Your task to perform on an android device: Open Amazon Image 0: 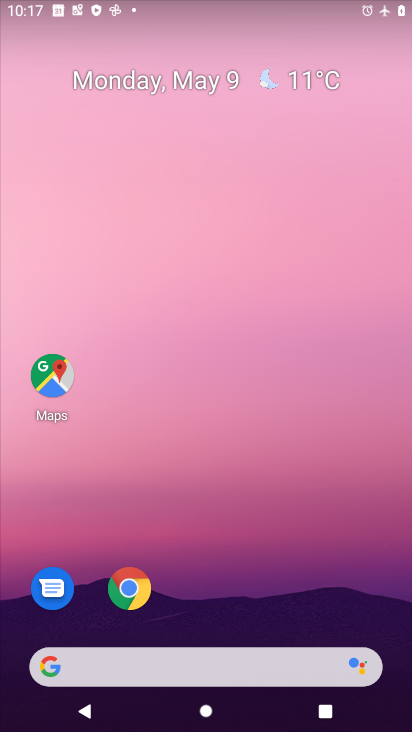
Step 0: drag from (336, 592) to (230, 108)
Your task to perform on an android device: Open Amazon Image 1: 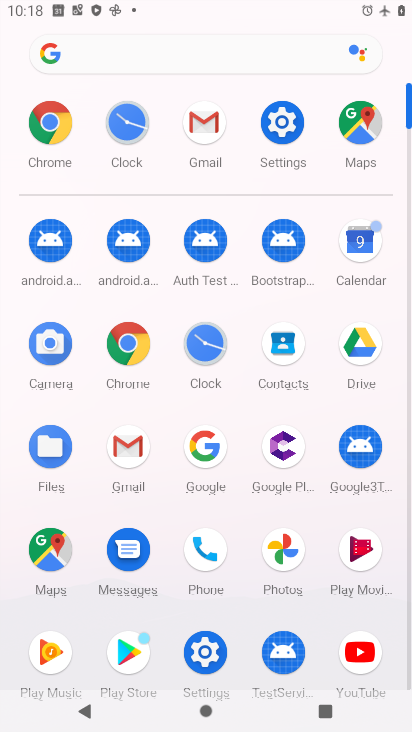
Step 1: click (135, 343)
Your task to perform on an android device: Open Amazon Image 2: 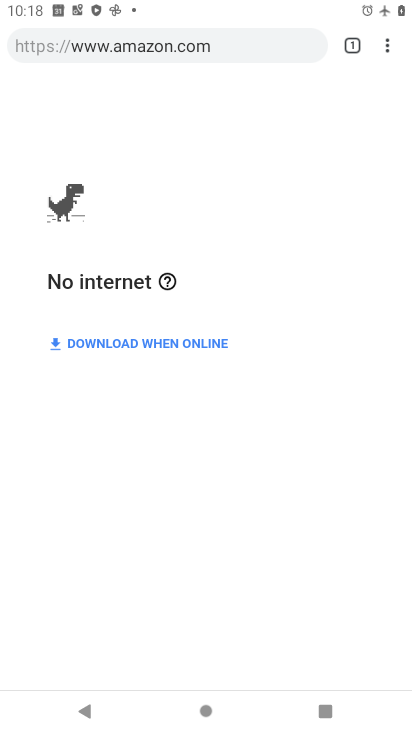
Step 2: press back button
Your task to perform on an android device: Open Amazon Image 3: 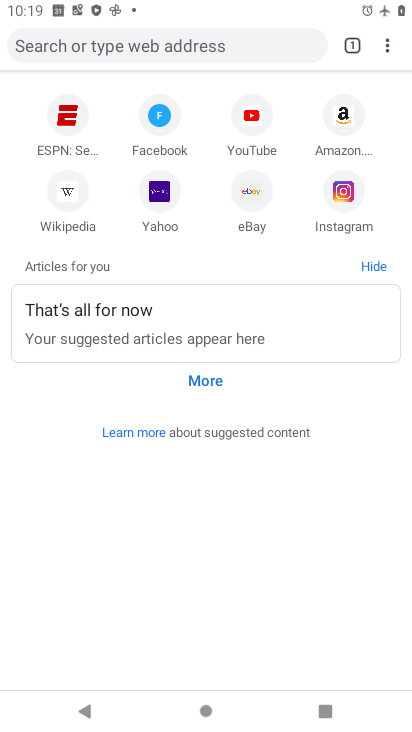
Step 3: click (343, 104)
Your task to perform on an android device: Open Amazon Image 4: 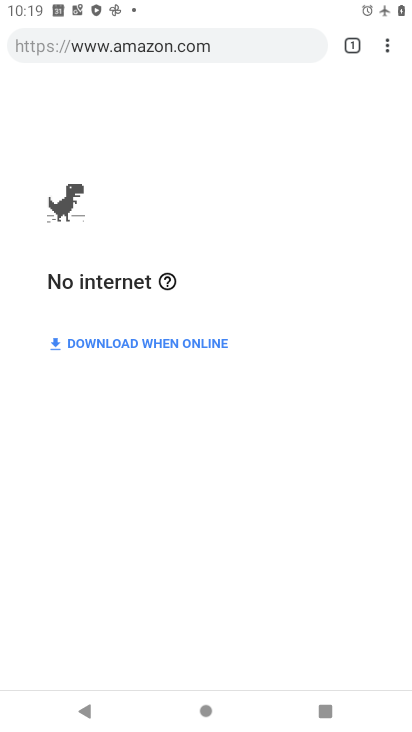
Step 4: task complete